Your task to perform on an android device: Open CNN.com Image 0: 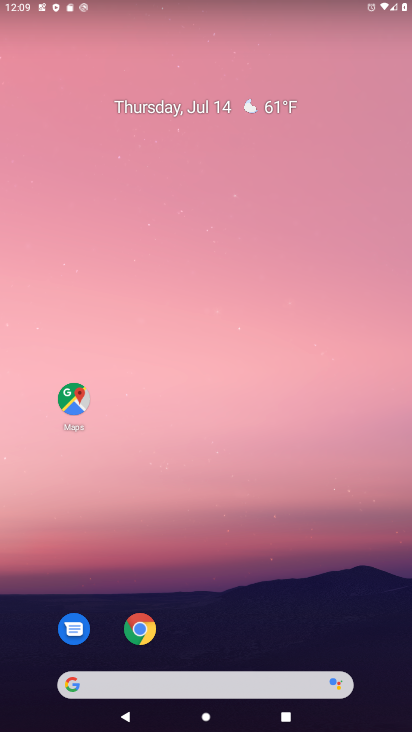
Step 0: click (145, 629)
Your task to perform on an android device: Open CNN.com Image 1: 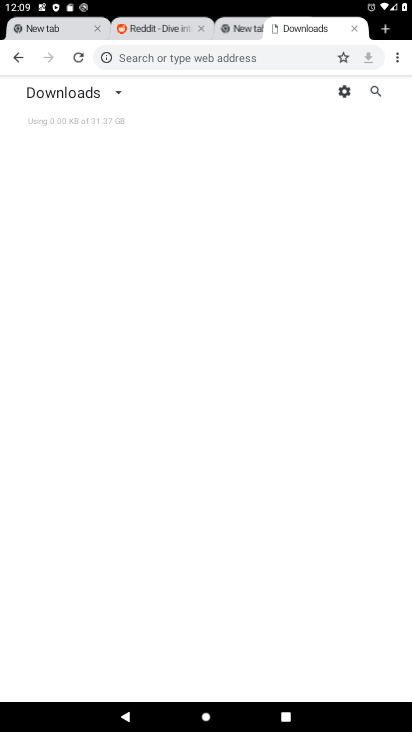
Step 1: click (401, 55)
Your task to perform on an android device: Open CNN.com Image 2: 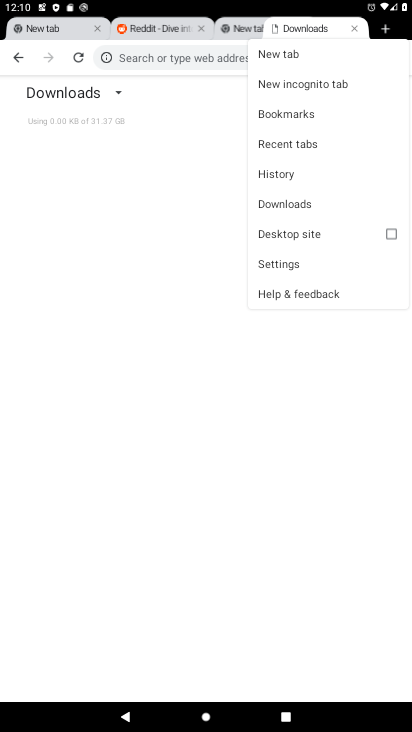
Step 2: click (293, 51)
Your task to perform on an android device: Open CNN.com Image 3: 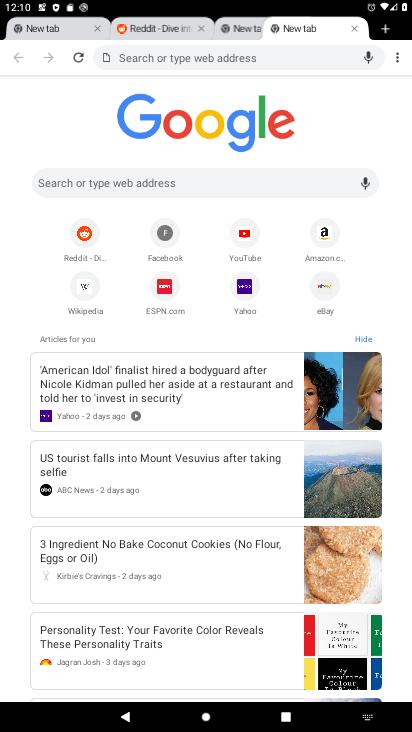
Step 3: click (188, 177)
Your task to perform on an android device: Open CNN.com Image 4: 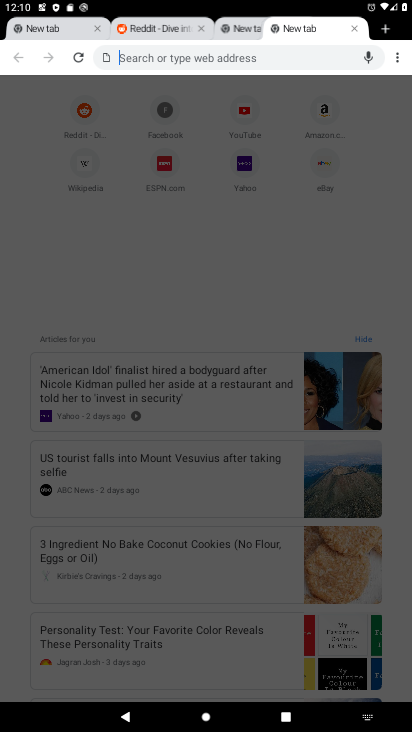
Step 4: type "cnn.com"
Your task to perform on an android device: Open CNN.com Image 5: 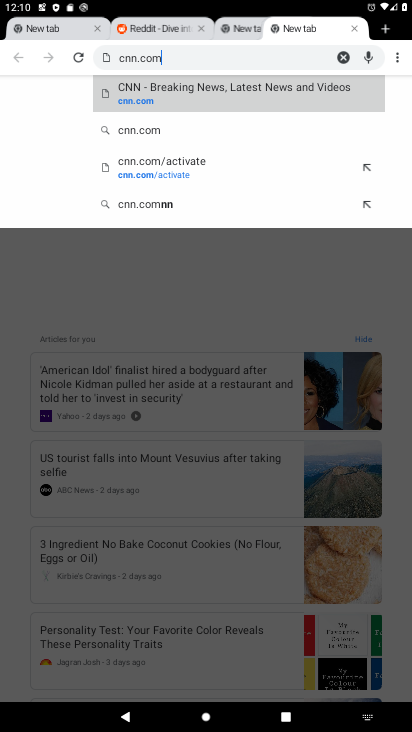
Step 5: click (159, 86)
Your task to perform on an android device: Open CNN.com Image 6: 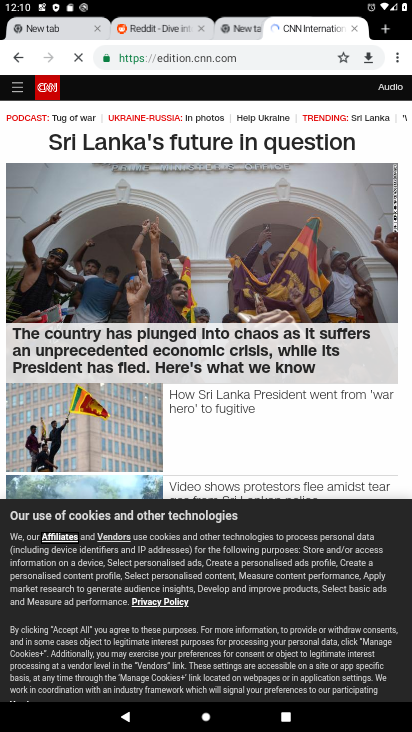
Step 6: task complete